Your task to perform on an android device: Is it going to rain tomorrow? Image 0: 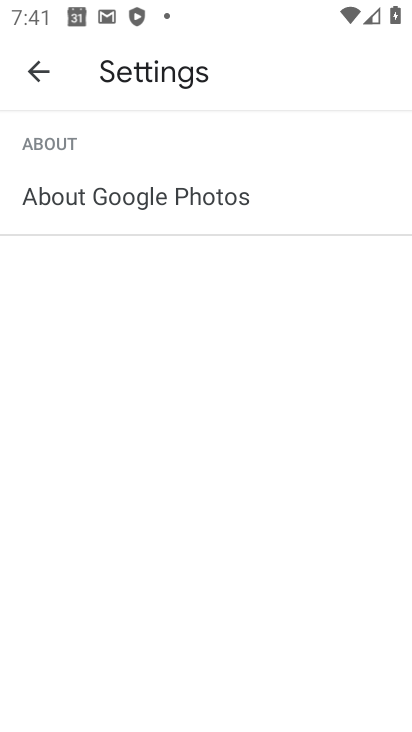
Step 0: press home button
Your task to perform on an android device: Is it going to rain tomorrow? Image 1: 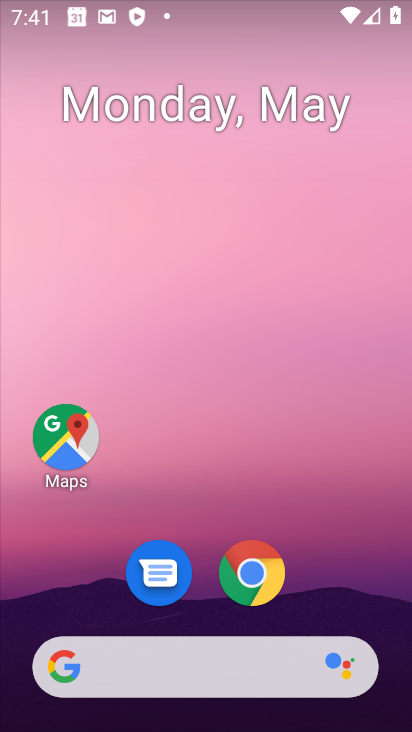
Step 1: drag from (183, 620) to (210, 187)
Your task to perform on an android device: Is it going to rain tomorrow? Image 2: 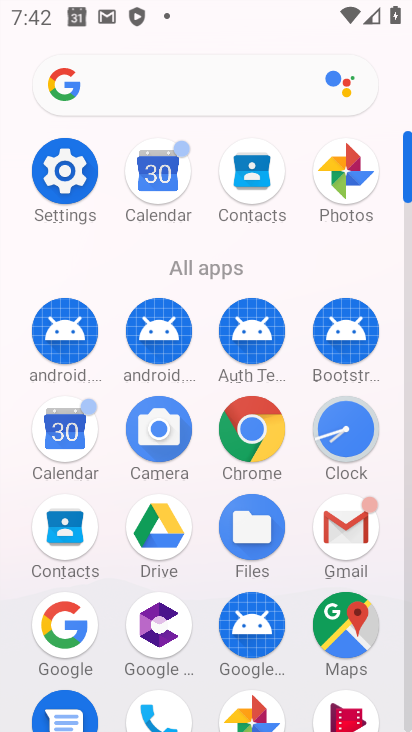
Step 2: click (88, 622)
Your task to perform on an android device: Is it going to rain tomorrow? Image 3: 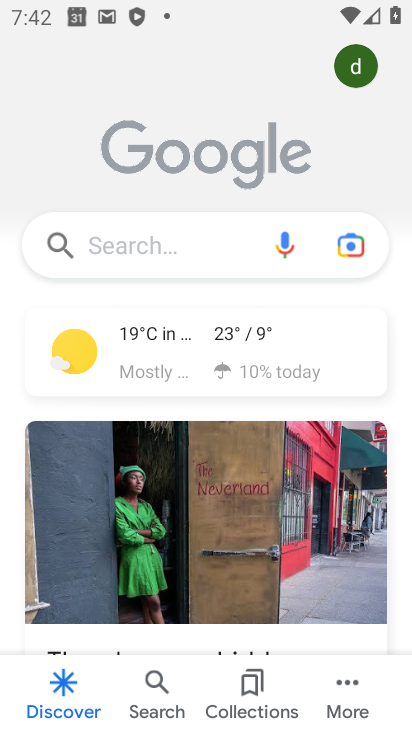
Step 3: click (202, 256)
Your task to perform on an android device: Is it going to rain tomorrow? Image 4: 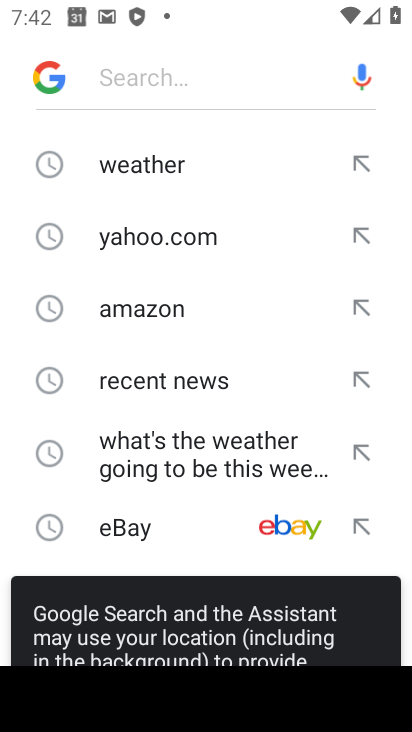
Step 4: click (170, 169)
Your task to perform on an android device: Is it going to rain tomorrow? Image 5: 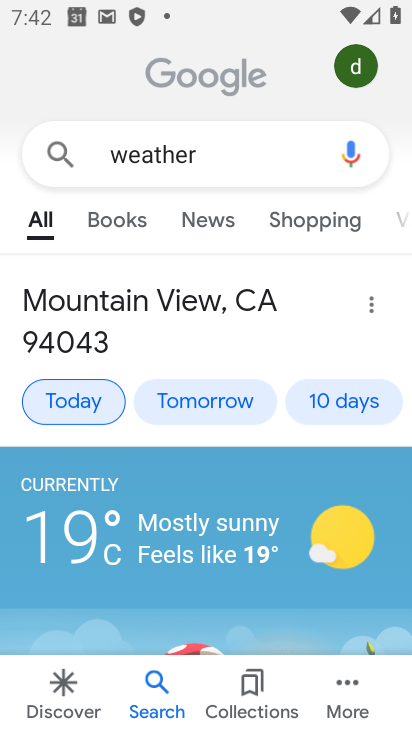
Step 5: click (183, 393)
Your task to perform on an android device: Is it going to rain tomorrow? Image 6: 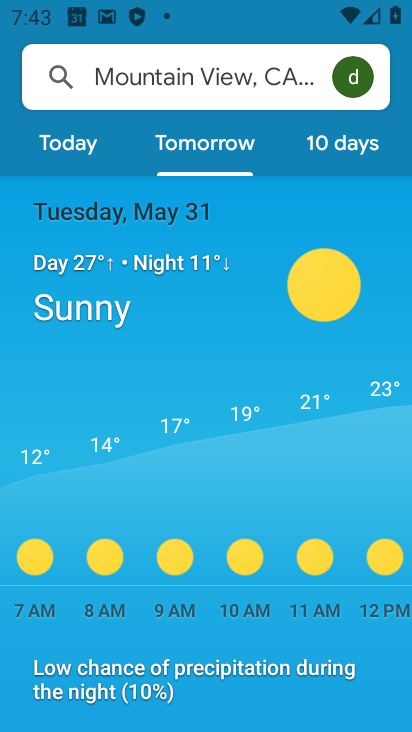
Step 6: task complete